Your task to perform on an android device: Go to Amazon Image 0: 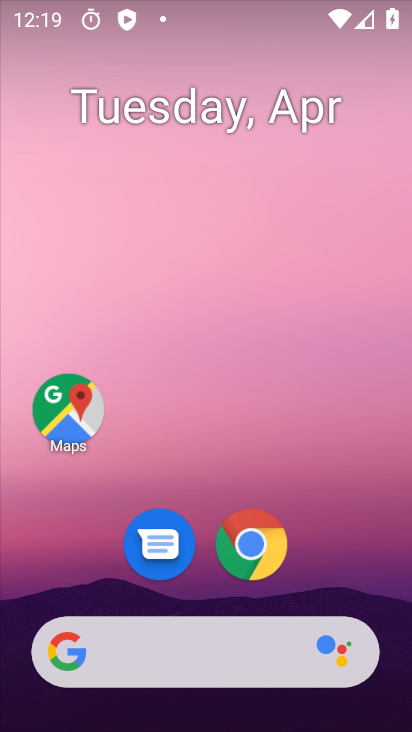
Step 0: click (245, 543)
Your task to perform on an android device: Go to Amazon Image 1: 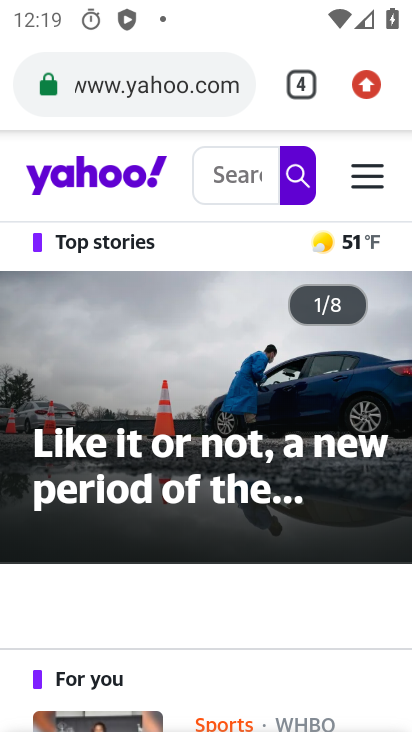
Step 1: click (366, 85)
Your task to perform on an android device: Go to Amazon Image 2: 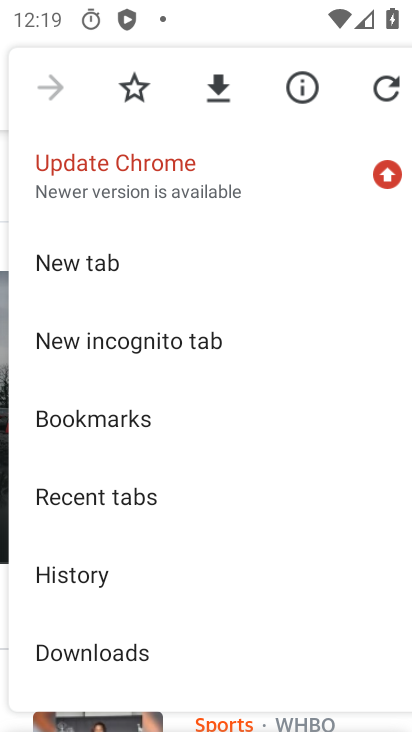
Step 2: click (95, 266)
Your task to perform on an android device: Go to Amazon Image 3: 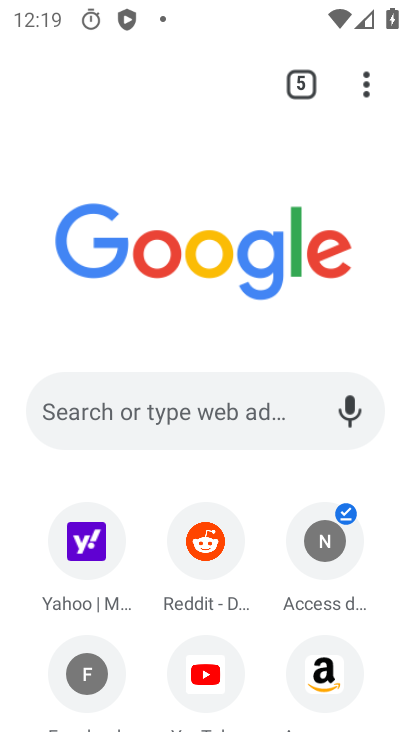
Step 3: click (331, 677)
Your task to perform on an android device: Go to Amazon Image 4: 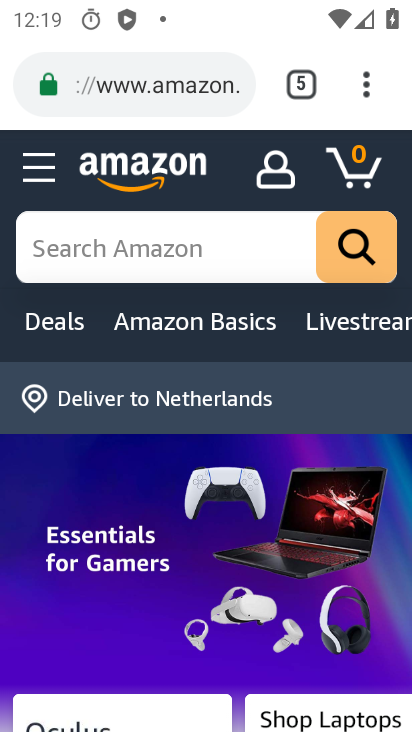
Step 4: task complete